Your task to perform on an android device: toggle translation in the chrome app Image 0: 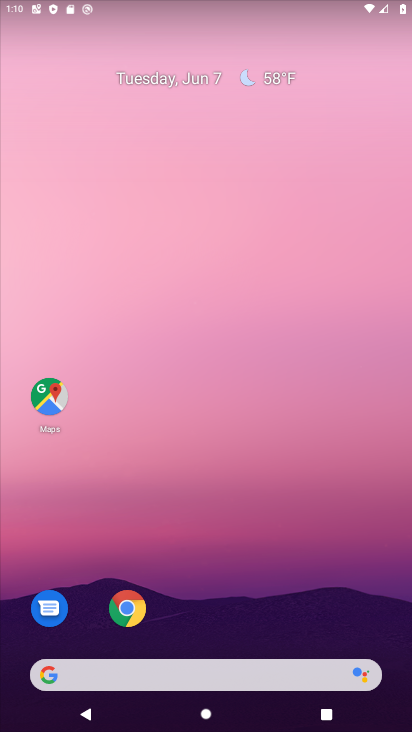
Step 0: drag from (298, 582) to (212, 126)
Your task to perform on an android device: toggle translation in the chrome app Image 1: 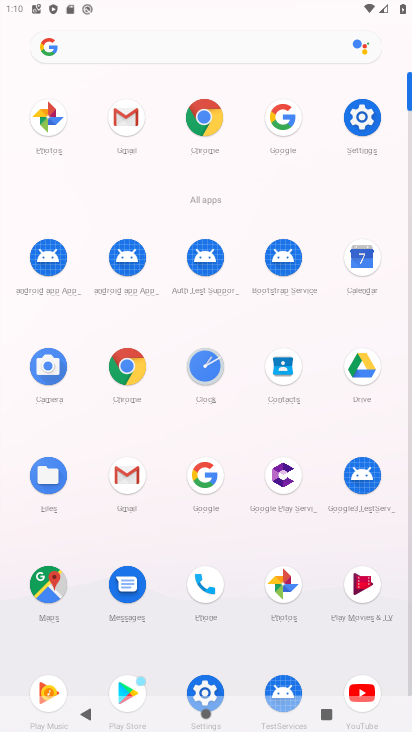
Step 1: click (118, 368)
Your task to perform on an android device: toggle translation in the chrome app Image 2: 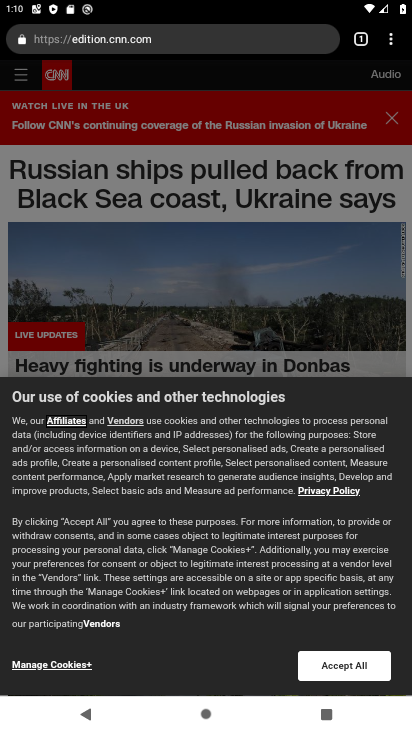
Step 2: click (392, 38)
Your task to perform on an android device: toggle translation in the chrome app Image 3: 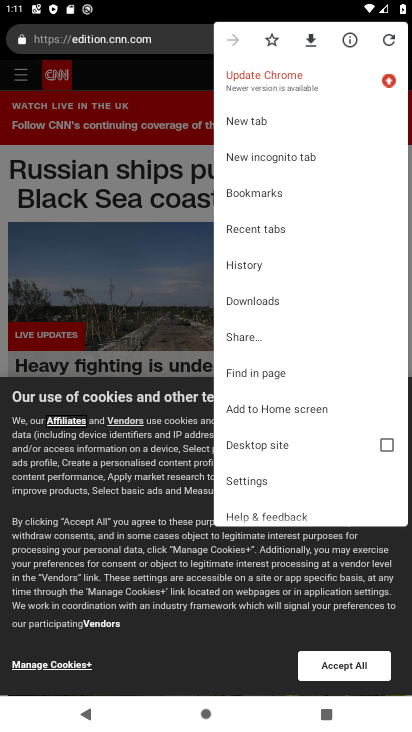
Step 3: click (275, 481)
Your task to perform on an android device: toggle translation in the chrome app Image 4: 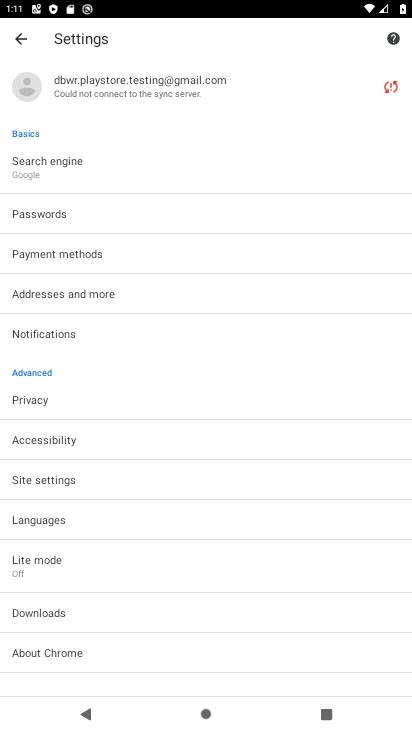
Step 4: drag from (132, 633) to (149, 198)
Your task to perform on an android device: toggle translation in the chrome app Image 5: 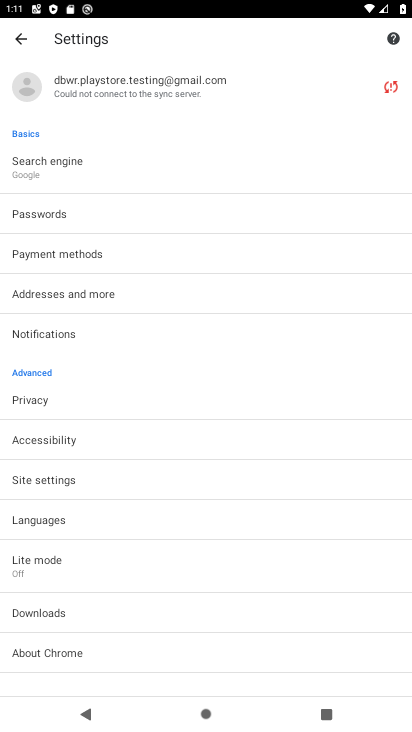
Step 5: click (55, 517)
Your task to perform on an android device: toggle translation in the chrome app Image 6: 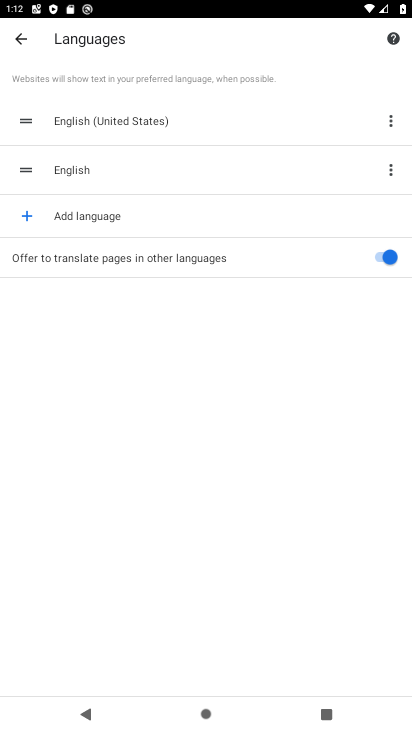
Step 6: task complete